Your task to perform on an android device: turn pop-ups off in chrome Image 0: 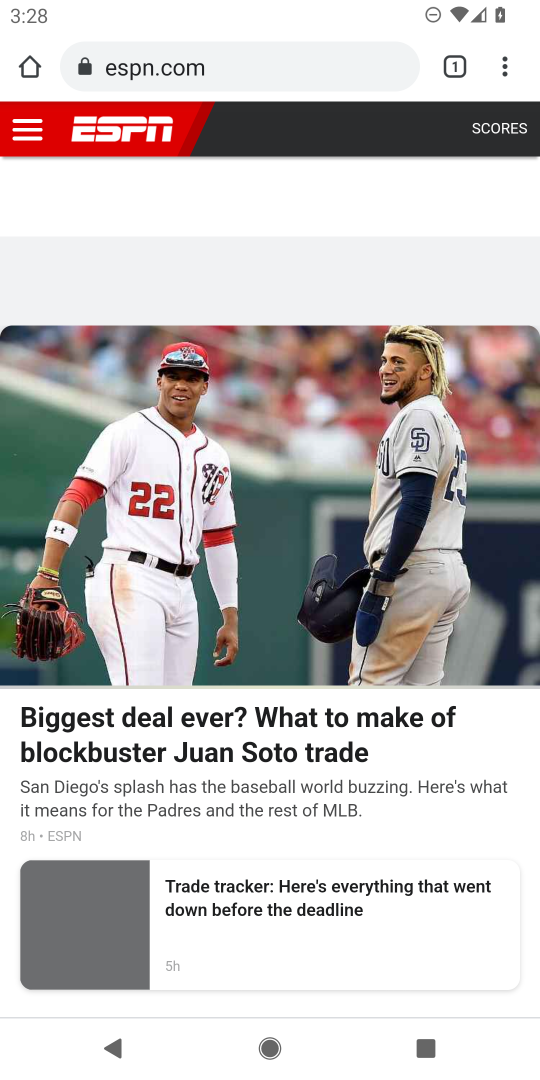
Step 0: click (497, 61)
Your task to perform on an android device: turn pop-ups off in chrome Image 1: 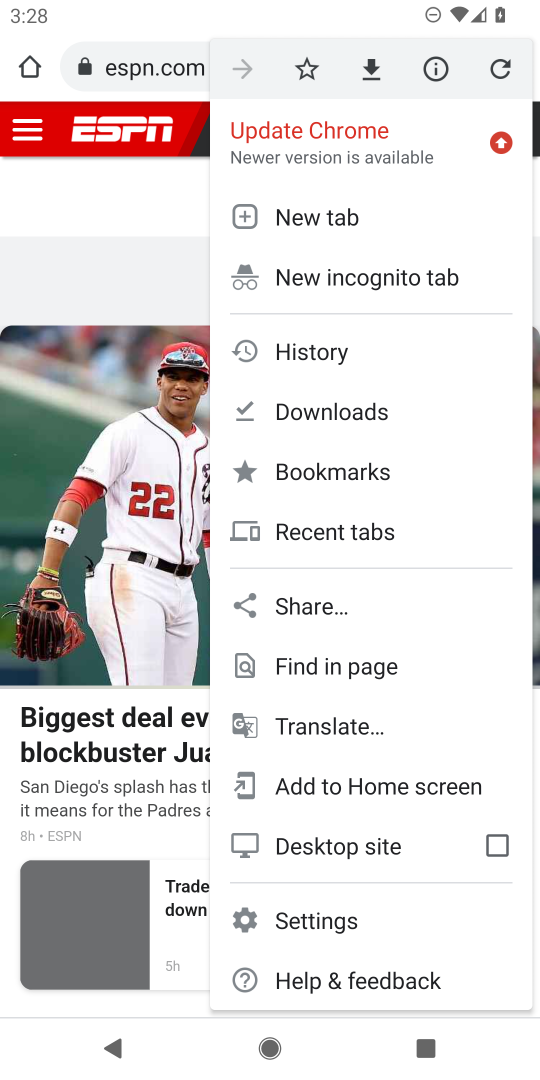
Step 1: click (313, 924)
Your task to perform on an android device: turn pop-ups off in chrome Image 2: 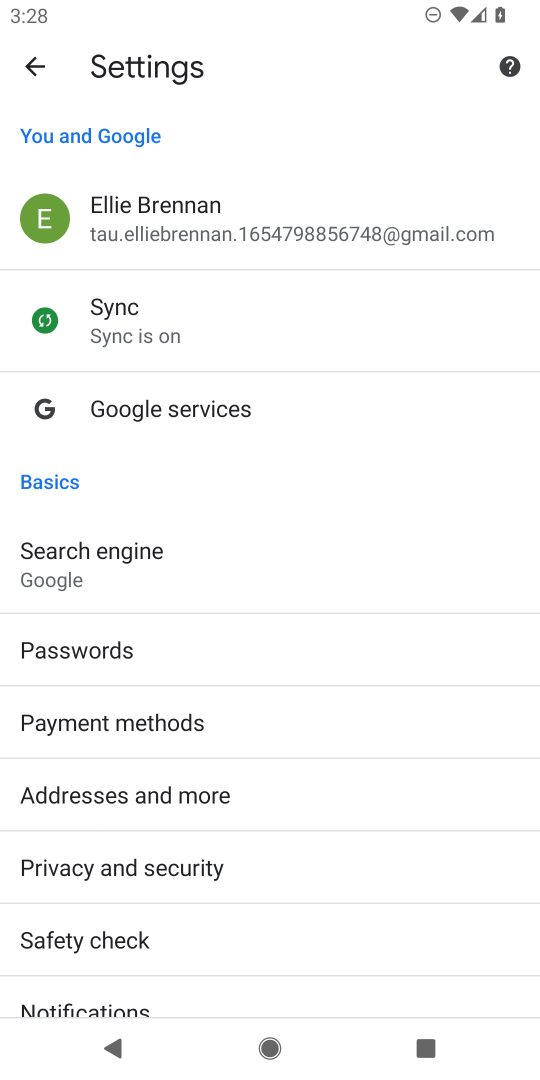
Step 2: drag from (177, 981) to (205, 613)
Your task to perform on an android device: turn pop-ups off in chrome Image 3: 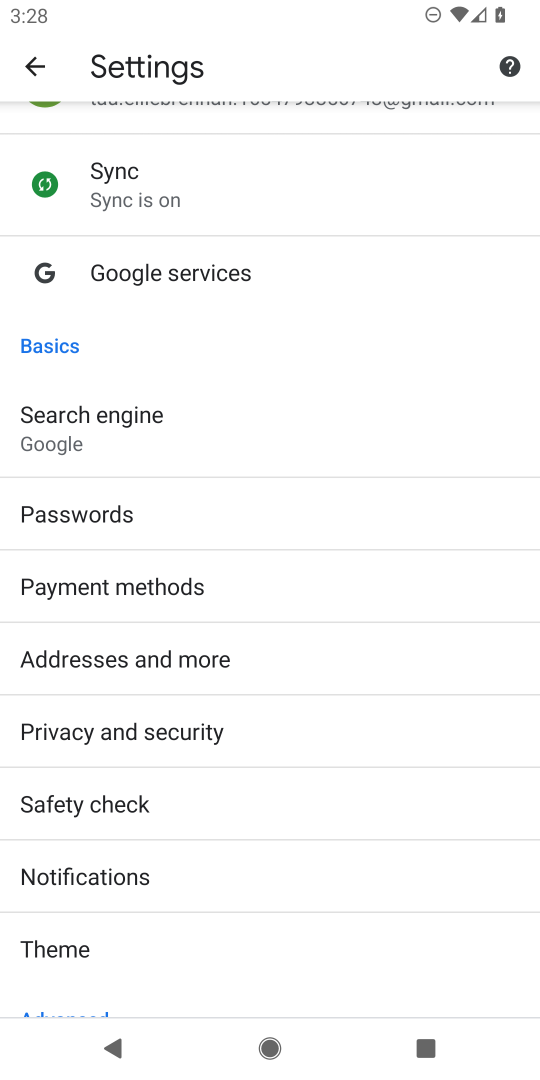
Step 3: drag from (224, 904) to (242, 481)
Your task to perform on an android device: turn pop-ups off in chrome Image 4: 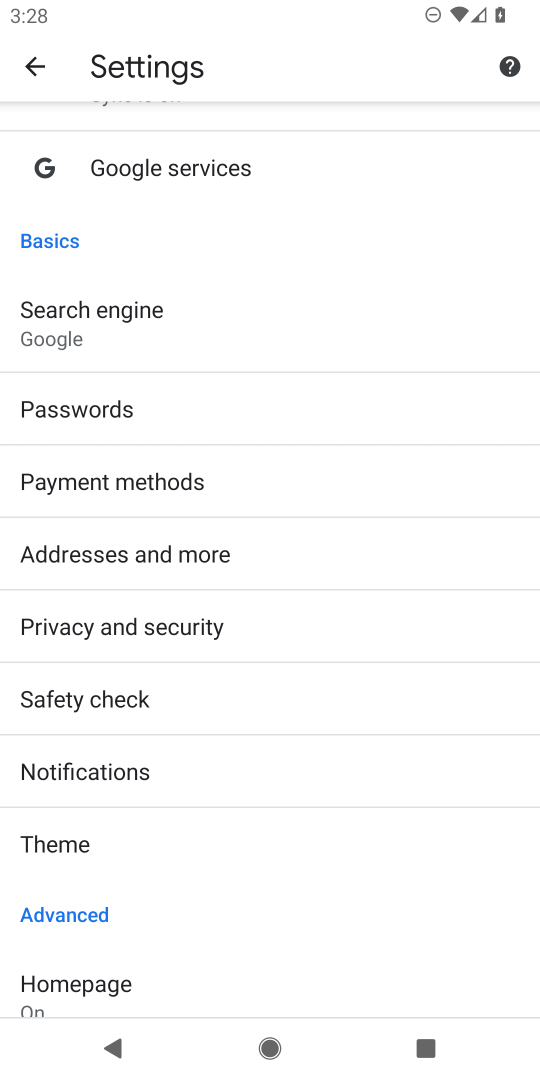
Step 4: drag from (243, 849) to (244, 527)
Your task to perform on an android device: turn pop-ups off in chrome Image 5: 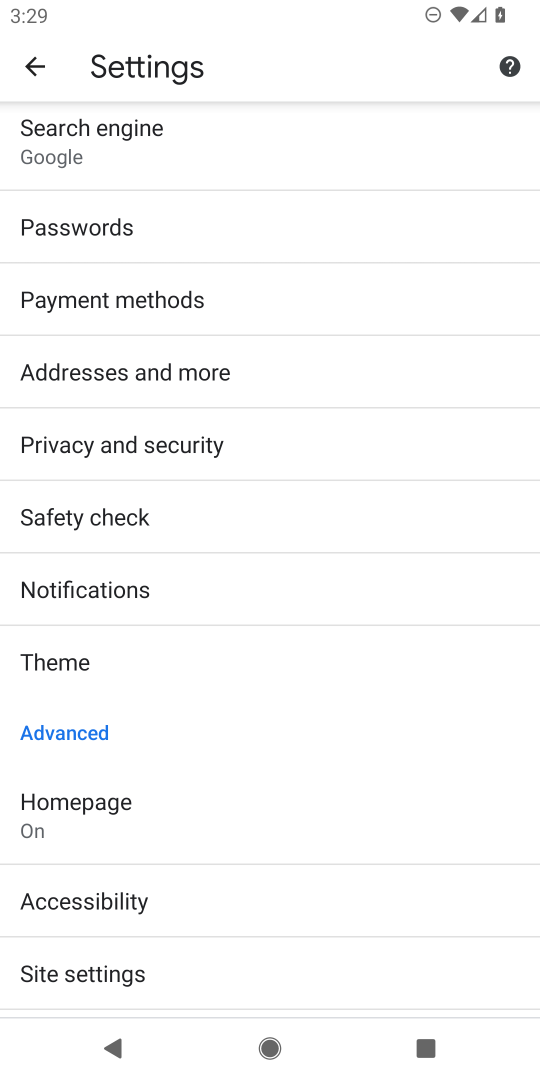
Step 5: click (129, 962)
Your task to perform on an android device: turn pop-ups off in chrome Image 6: 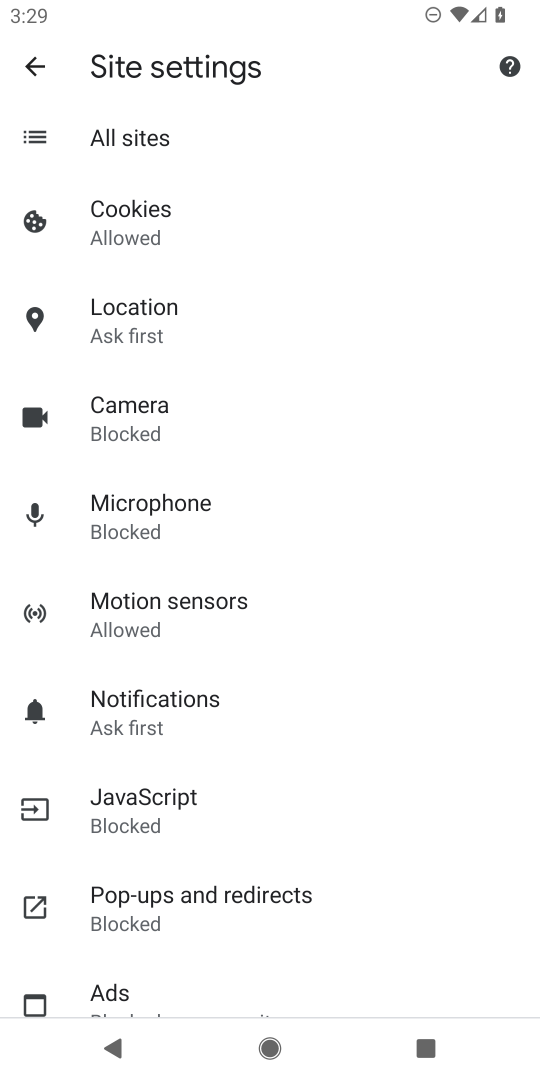
Step 6: click (272, 895)
Your task to perform on an android device: turn pop-ups off in chrome Image 7: 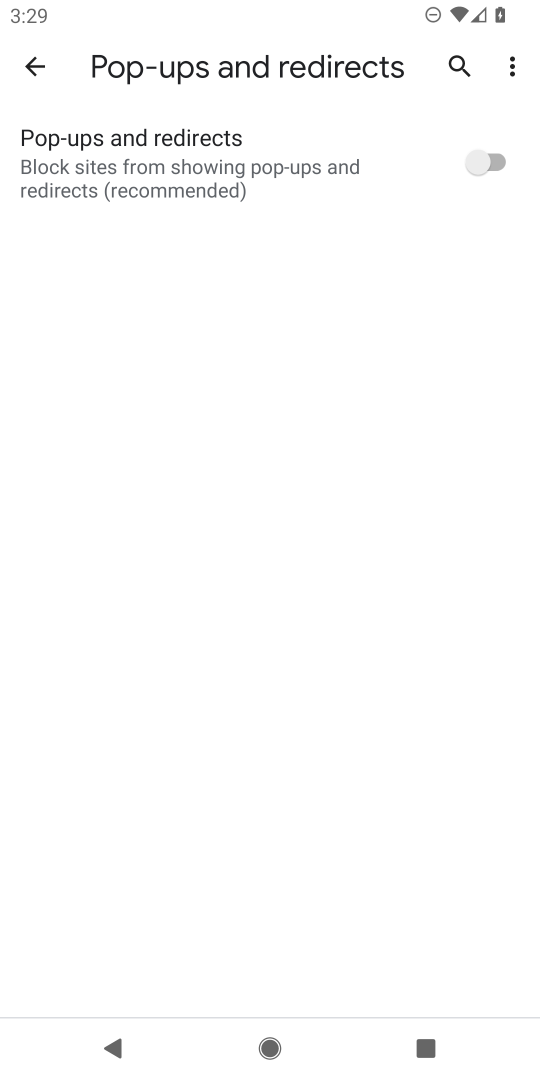
Step 7: task complete